Your task to perform on an android device: turn off smart reply in the gmail app Image 0: 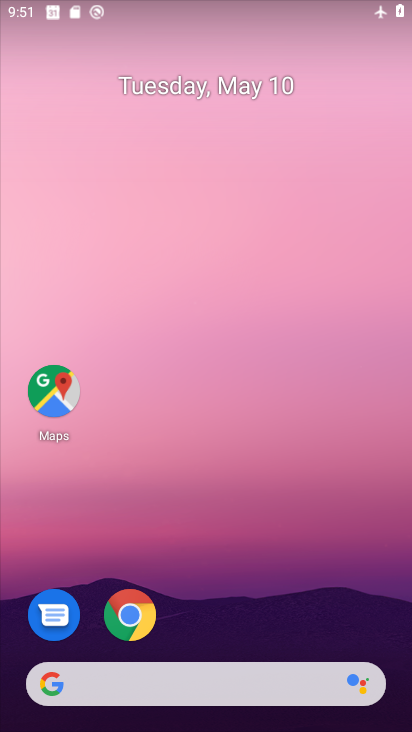
Step 0: drag from (202, 651) to (237, 64)
Your task to perform on an android device: turn off smart reply in the gmail app Image 1: 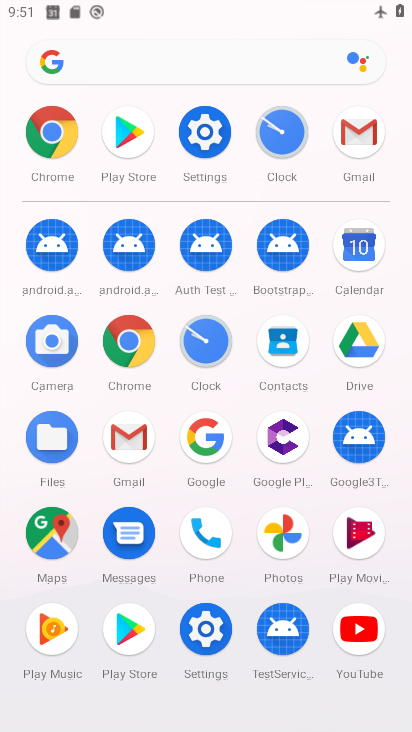
Step 1: click (127, 447)
Your task to perform on an android device: turn off smart reply in the gmail app Image 2: 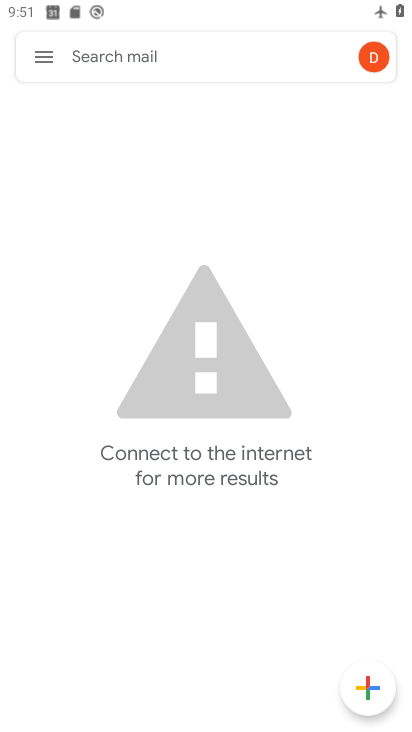
Step 2: drag from (202, 649) to (287, 412)
Your task to perform on an android device: turn off smart reply in the gmail app Image 3: 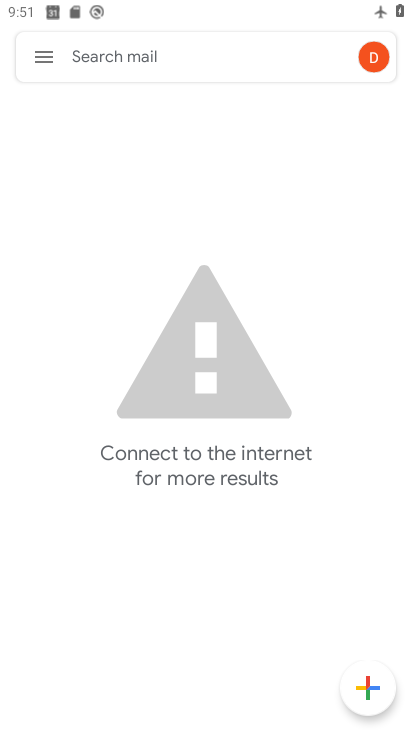
Step 3: press home button
Your task to perform on an android device: turn off smart reply in the gmail app Image 4: 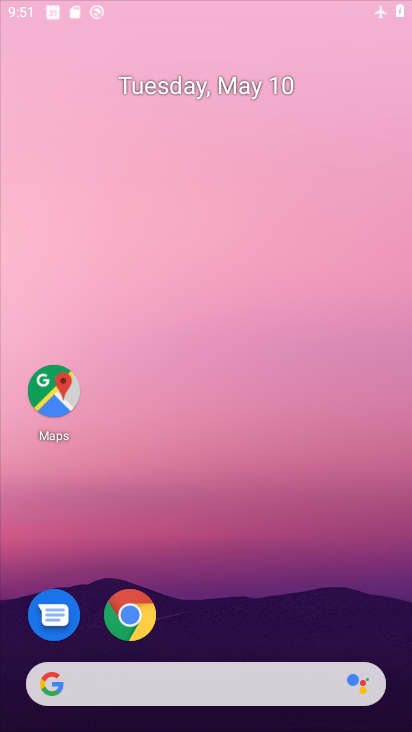
Step 4: drag from (138, 652) to (270, 209)
Your task to perform on an android device: turn off smart reply in the gmail app Image 5: 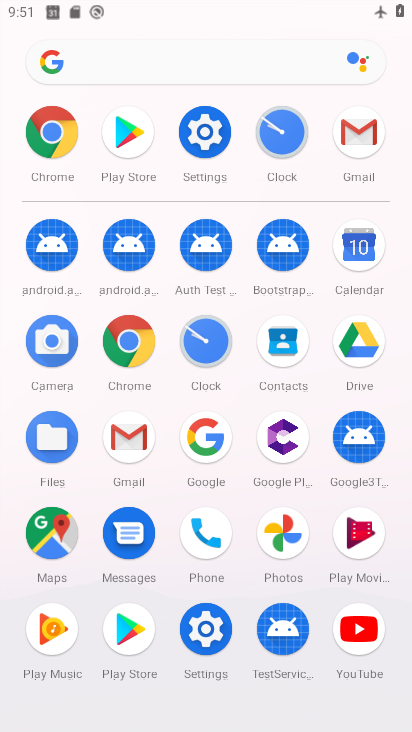
Step 5: click (107, 441)
Your task to perform on an android device: turn off smart reply in the gmail app Image 6: 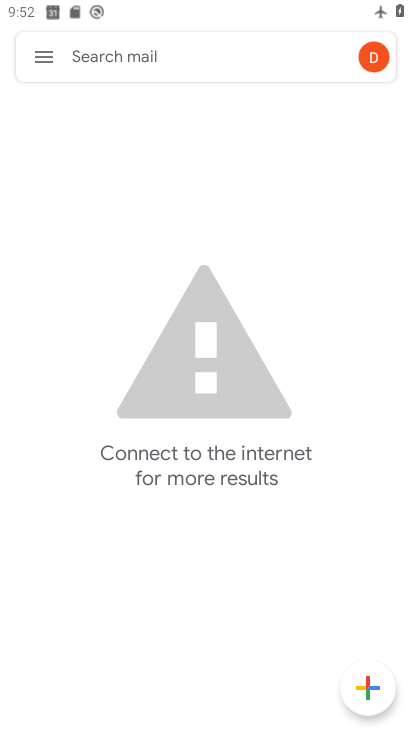
Step 6: drag from (145, 643) to (287, 271)
Your task to perform on an android device: turn off smart reply in the gmail app Image 7: 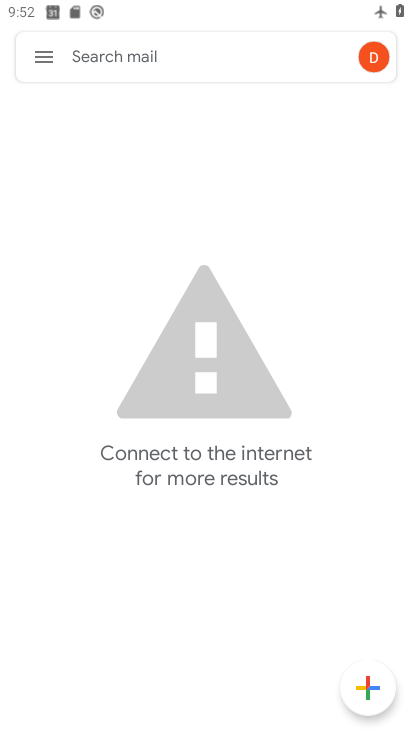
Step 7: click (36, 62)
Your task to perform on an android device: turn off smart reply in the gmail app Image 8: 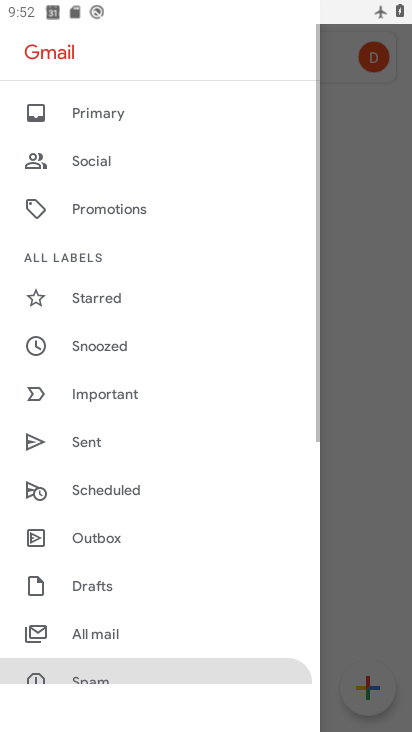
Step 8: drag from (112, 629) to (202, 212)
Your task to perform on an android device: turn off smart reply in the gmail app Image 9: 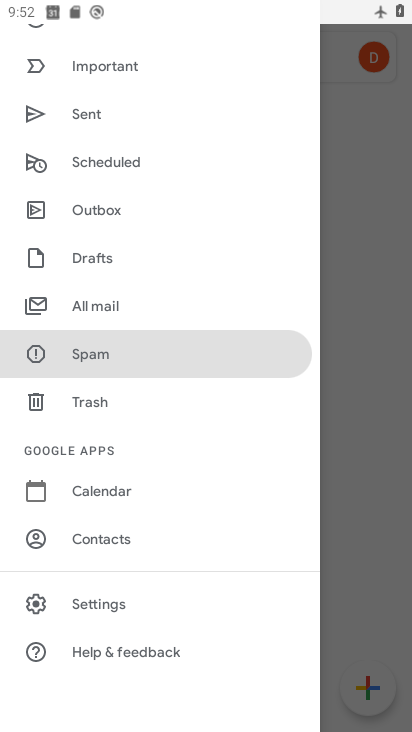
Step 9: click (86, 609)
Your task to perform on an android device: turn off smart reply in the gmail app Image 10: 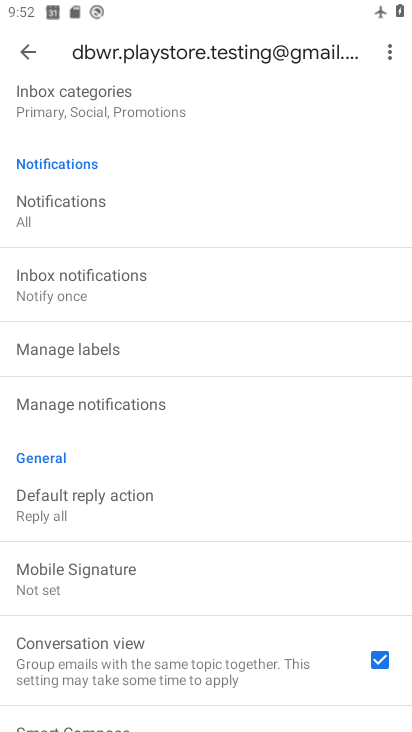
Step 10: drag from (159, 626) to (273, 164)
Your task to perform on an android device: turn off smart reply in the gmail app Image 11: 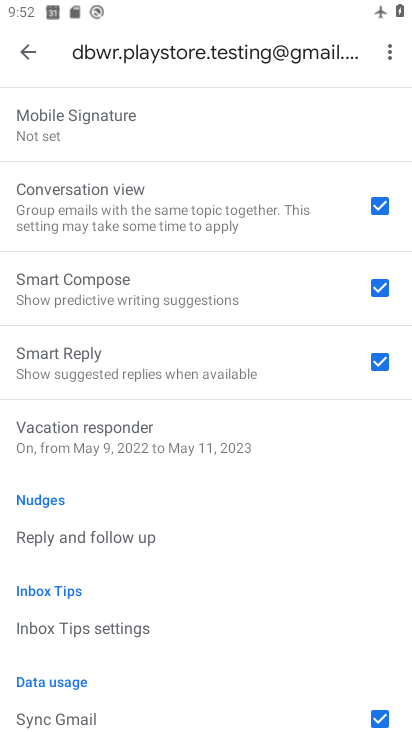
Step 11: click (384, 363)
Your task to perform on an android device: turn off smart reply in the gmail app Image 12: 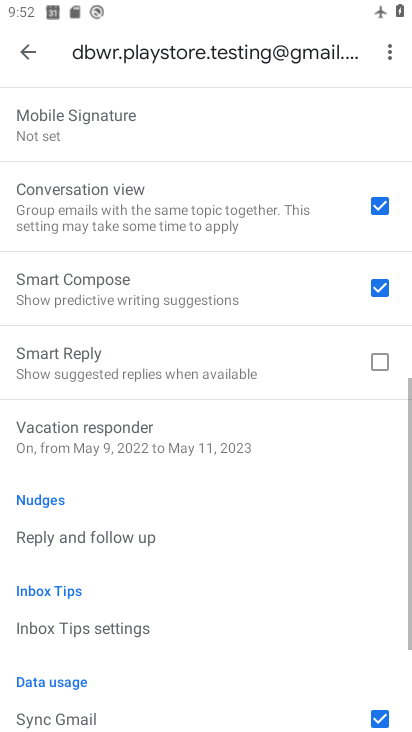
Step 12: task complete